Your task to perform on an android device: Open display settings Image 0: 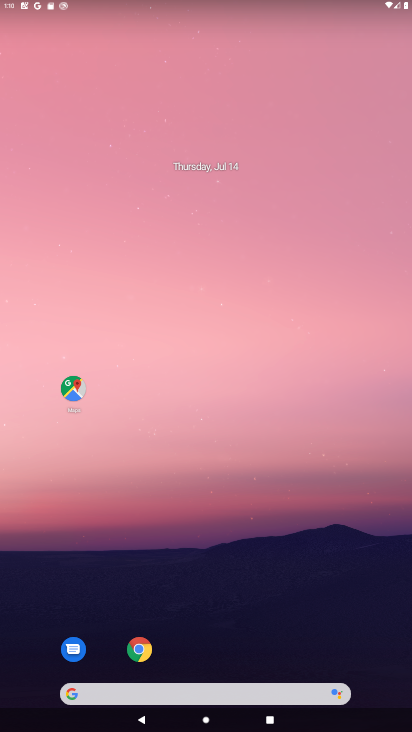
Step 0: drag from (267, 659) to (302, 25)
Your task to perform on an android device: Open display settings Image 1: 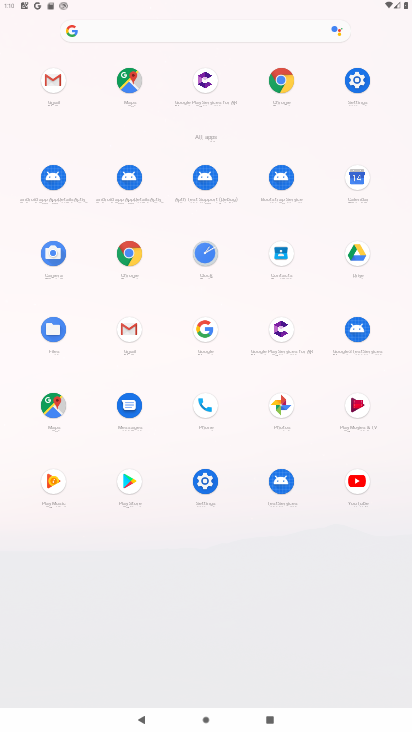
Step 1: click (355, 86)
Your task to perform on an android device: Open display settings Image 2: 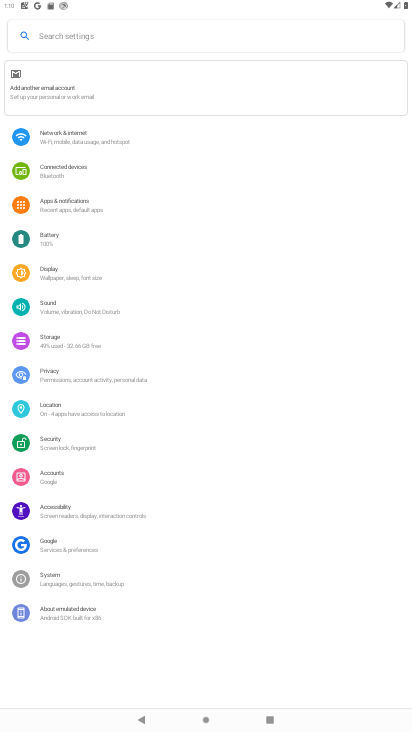
Step 2: click (86, 274)
Your task to perform on an android device: Open display settings Image 3: 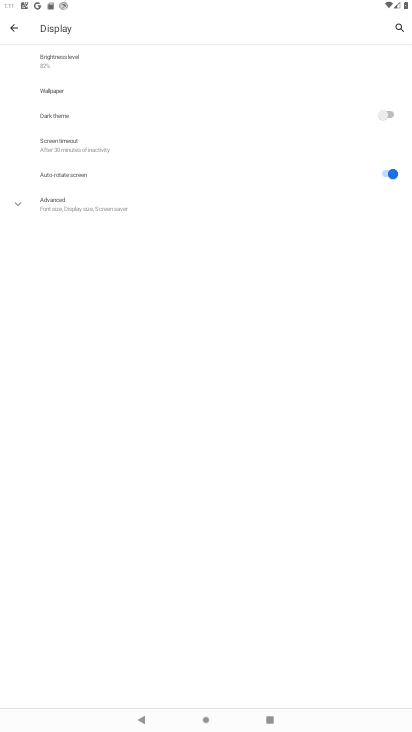
Step 3: task complete